Your task to perform on an android device: toggle pop-ups in chrome Image 0: 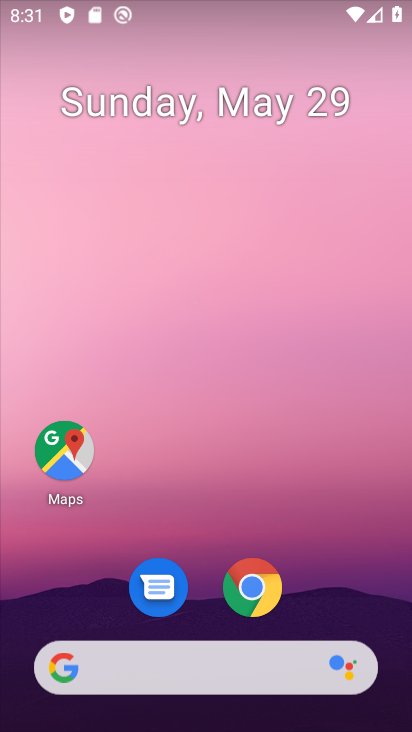
Step 0: click (270, 585)
Your task to perform on an android device: toggle pop-ups in chrome Image 1: 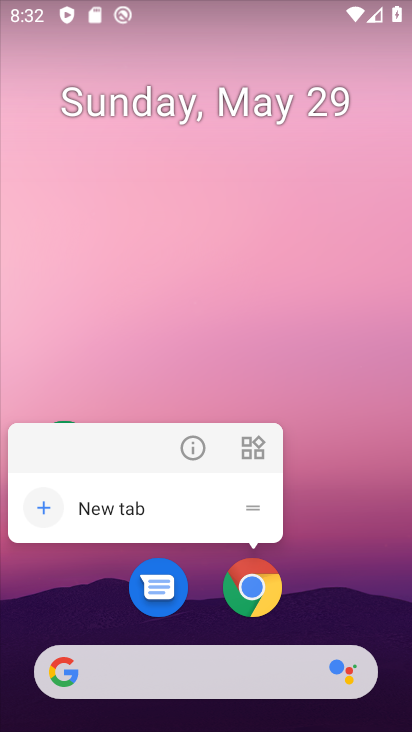
Step 1: click (252, 574)
Your task to perform on an android device: toggle pop-ups in chrome Image 2: 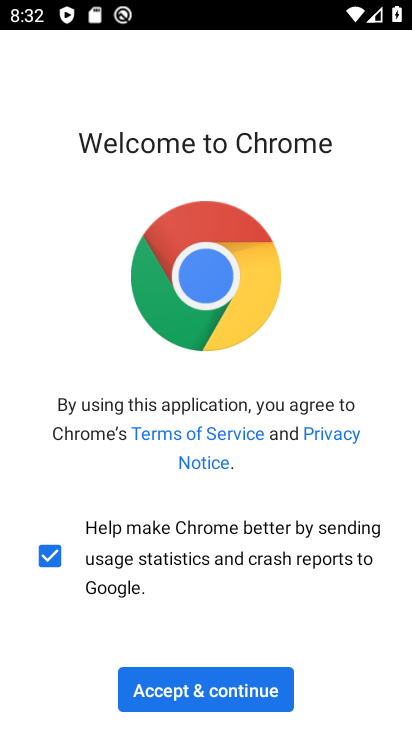
Step 2: click (192, 686)
Your task to perform on an android device: toggle pop-ups in chrome Image 3: 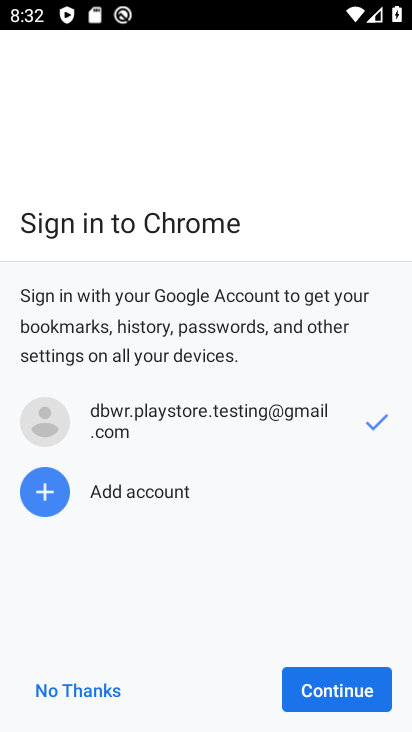
Step 3: click (353, 688)
Your task to perform on an android device: toggle pop-ups in chrome Image 4: 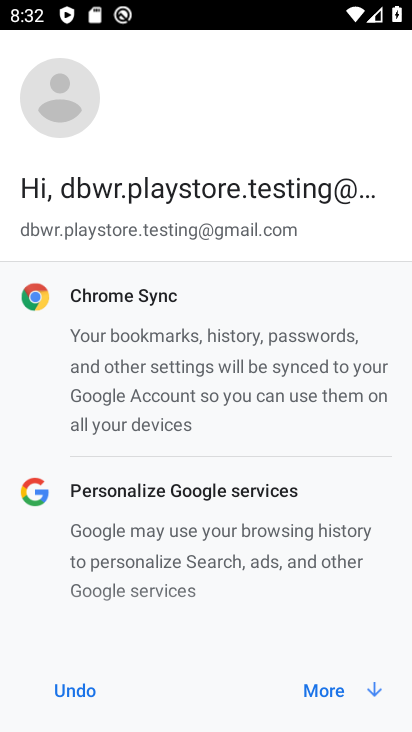
Step 4: click (365, 687)
Your task to perform on an android device: toggle pop-ups in chrome Image 5: 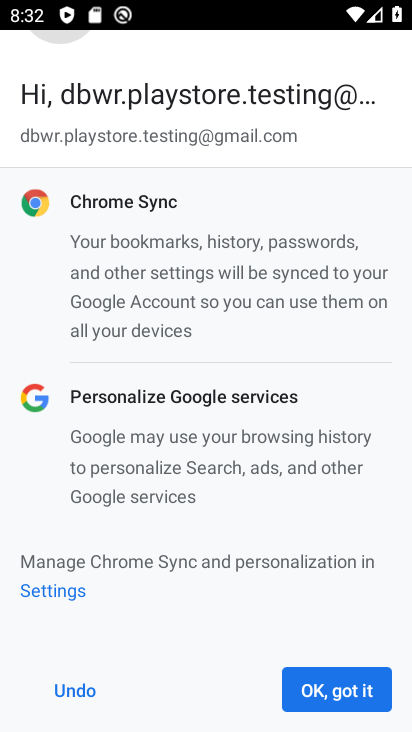
Step 5: click (305, 689)
Your task to perform on an android device: toggle pop-ups in chrome Image 6: 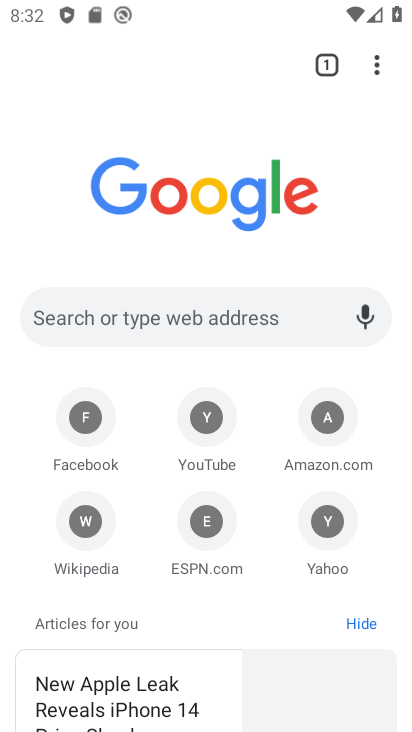
Step 6: drag from (373, 61) to (145, 548)
Your task to perform on an android device: toggle pop-ups in chrome Image 7: 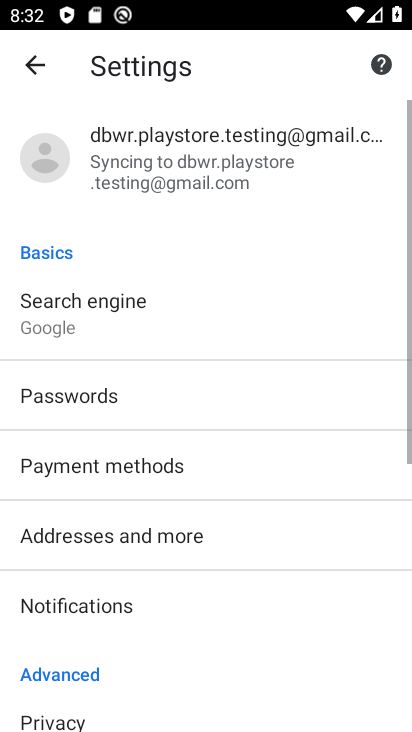
Step 7: drag from (171, 635) to (254, 84)
Your task to perform on an android device: toggle pop-ups in chrome Image 8: 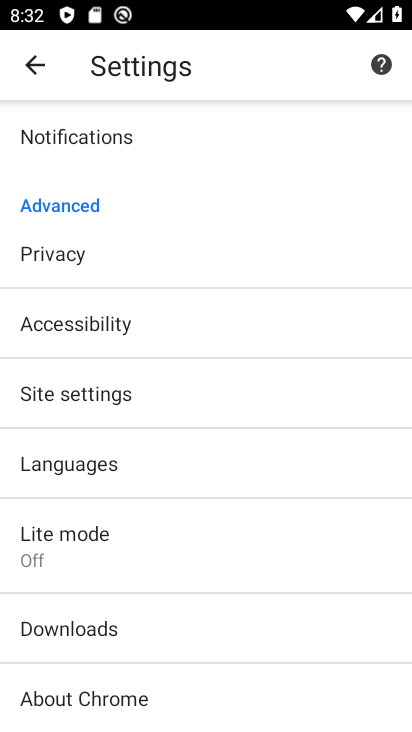
Step 8: click (80, 406)
Your task to perform on an android device: toggle pop-ups in chrome Image 9: 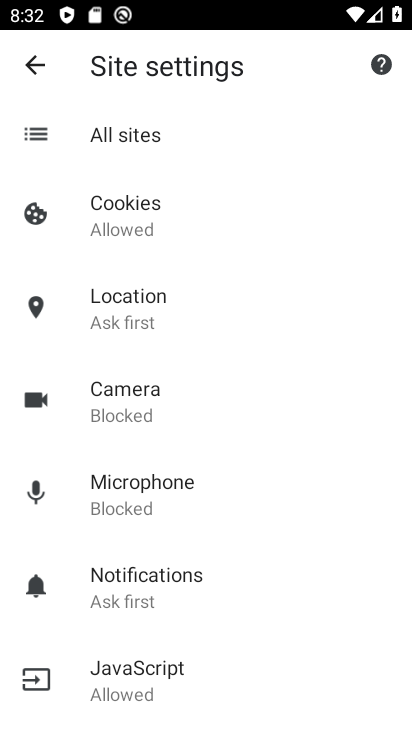
Step 9: drag from (168, 563) to (261, 112)
Your task to perform on an android device: toggle pop-ups in chrome Image 10: 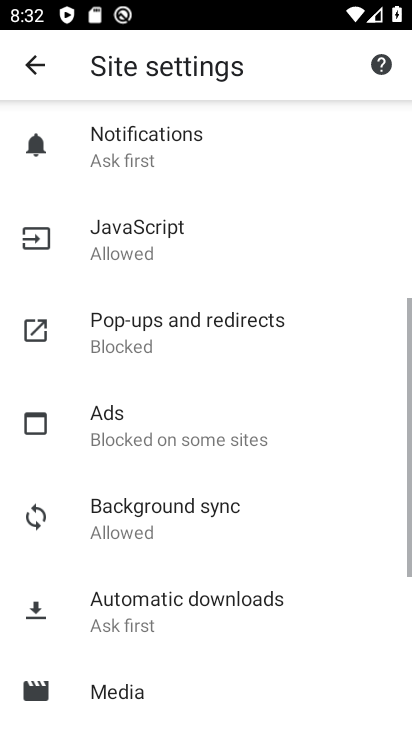
Step 10: click (164, 326)
Your task to perform on an android device: toggle pop-ups in chrome Image 11: 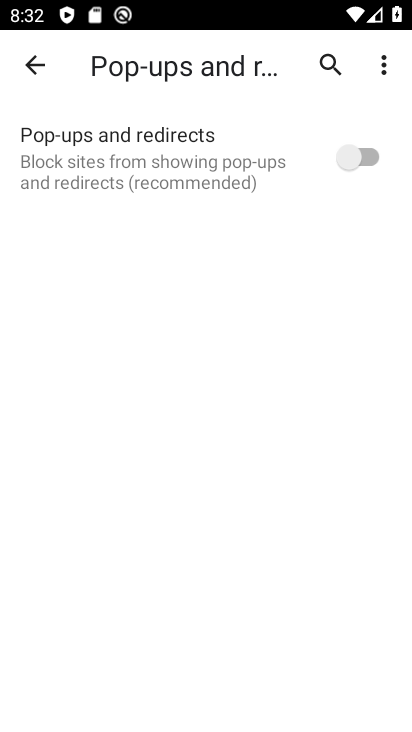
Step 11: click (359, 150)
Your task to perform on an android device: toggle pop-ups in chrome Image 12: 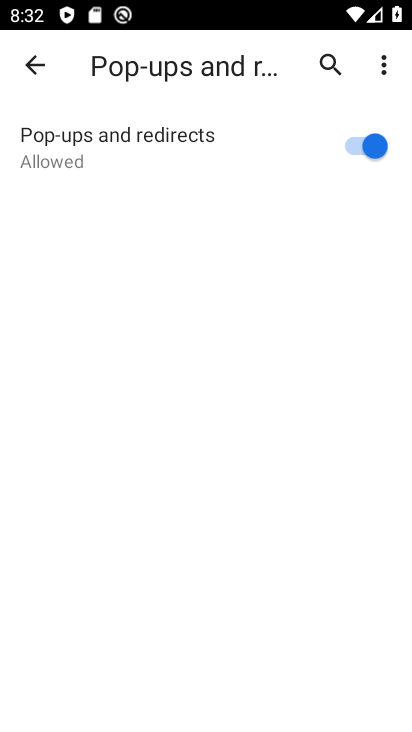
Step 12: task complete